Your task to perform on an android device: turn notification dots off Image 0: 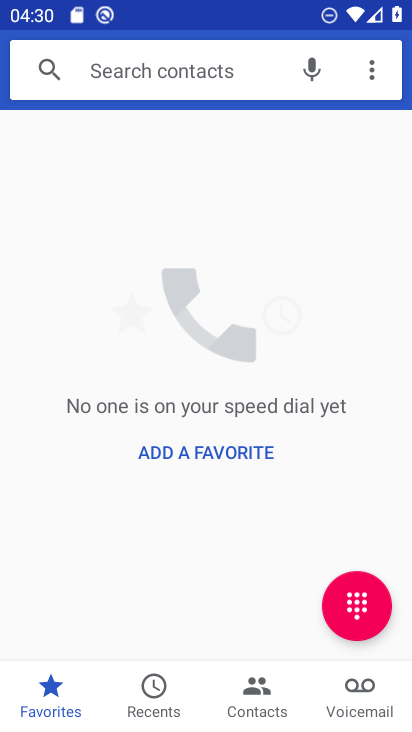
Step 0: drag from (170, 620) to (185, 525)
Your task to perform on an android device: turn notification dots off Image 1: 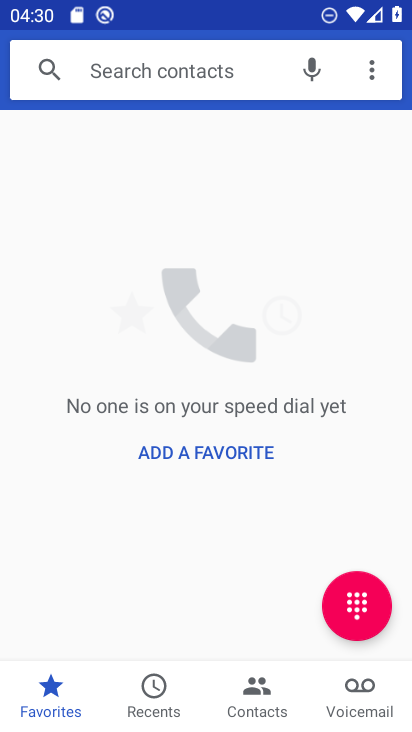
Step 1: press home button
Your task to perform on an android device: turn notification dots off Image 2: 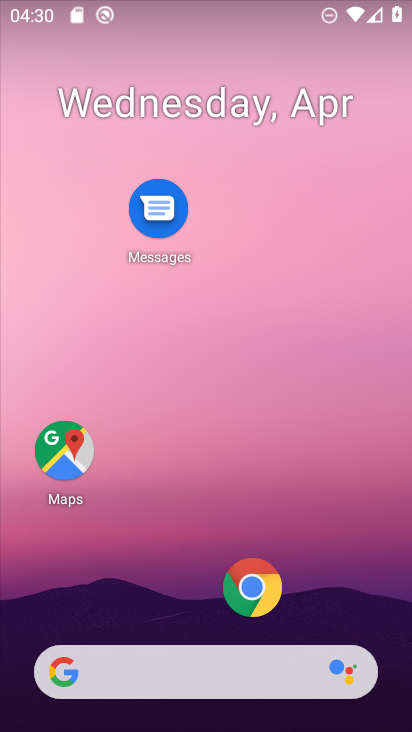
Step 2: drag from (187, 541) to (239, 153)
Your task to perform on an android device: turn notification dots off Image 3: 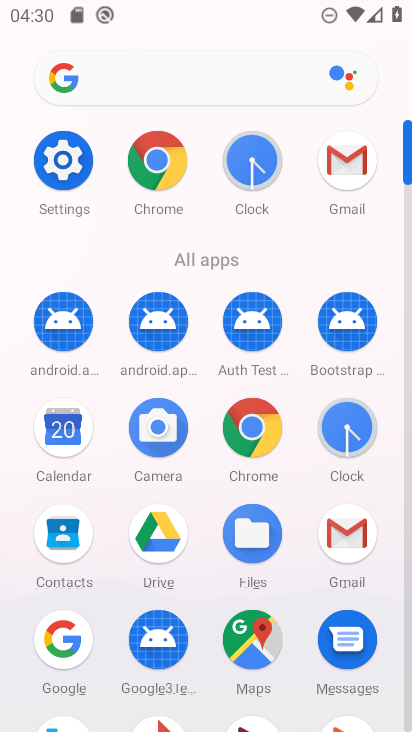
Step 3: click (77, 166)
Your task to perform on an android device: turn notification dots off Image 4: 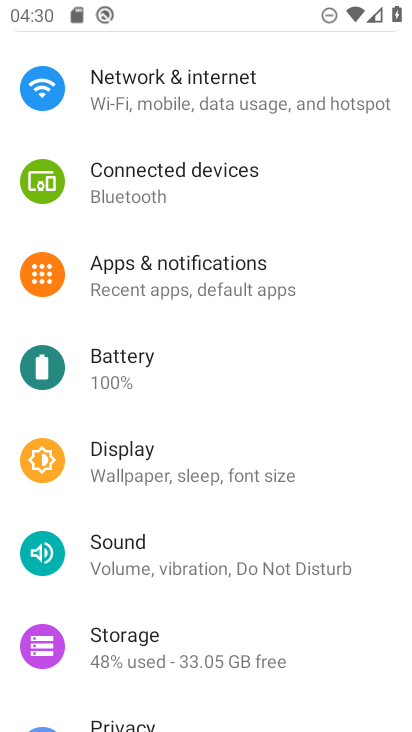
Step 4: click (225, 262)
Your task to perform on an android device: turn notification dots off Image 5: 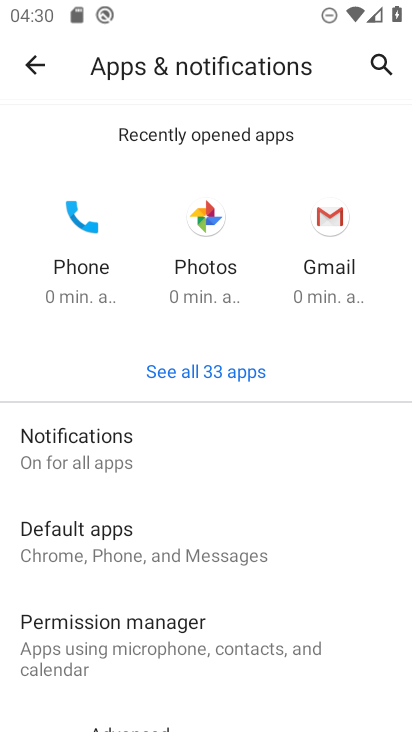
Step 5: drag from (223, 632) to (227, 327)
Your task to perform on an android device: turn notification dots off Image 6: 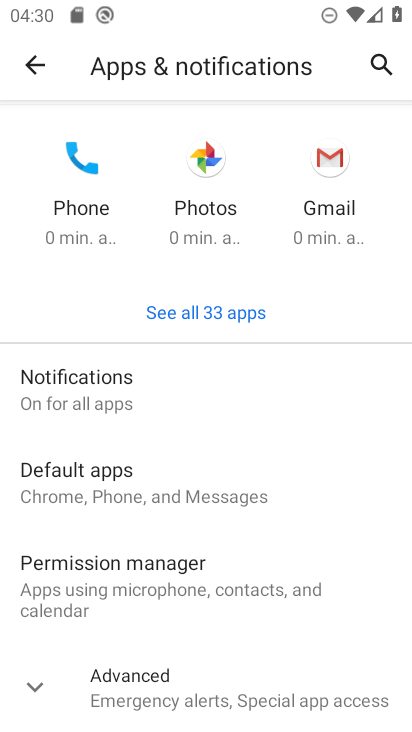
Step 6: click (221, 672)
Your task to perform on an android device: turn notification dots off Image 7: 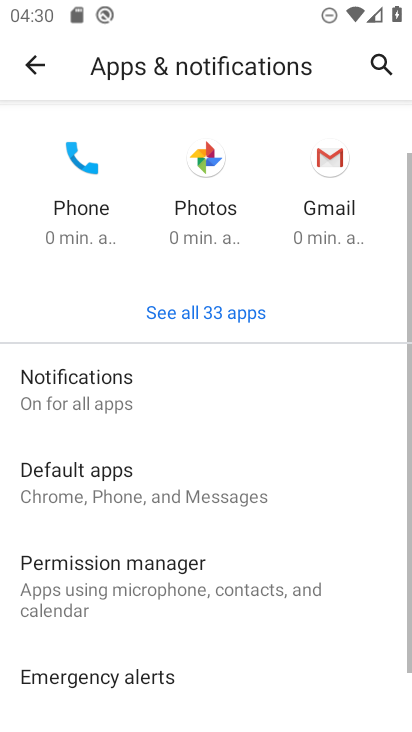
Step 7: drag from (220, 663) to (235, 436)
Your task to perform on an android device: turn notification dots off Image 8: 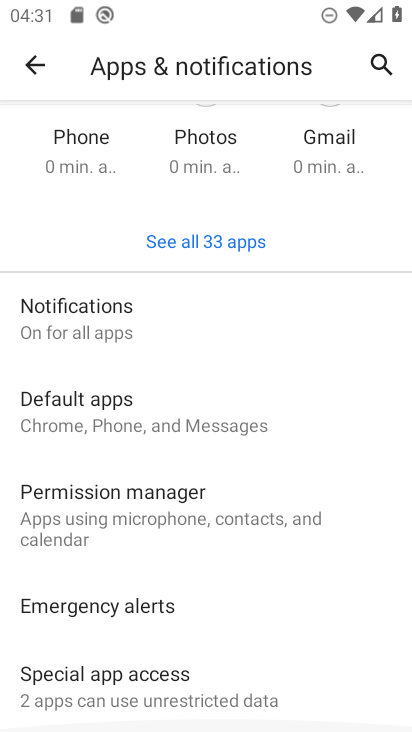
Step 8: click (182, 329)
Your task to perform on an android device: turn notification dots off Image 9: 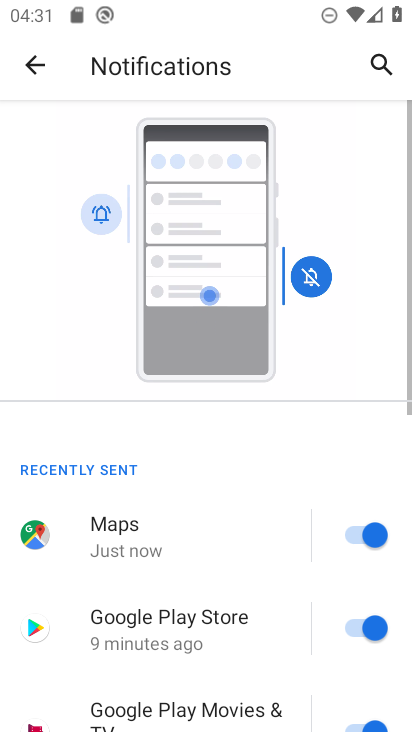
Step 9: drag from (199, 653) to (233, 224)
Your task to perform on an android device: turn notification dots off Image 10: 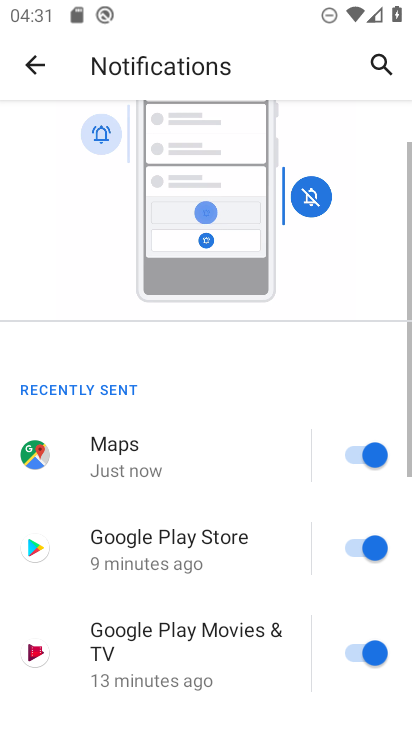
Step 10: drag from (278, 589) to (290, 268)
Your task to perform on an android device: turn notification dots off Image 11: 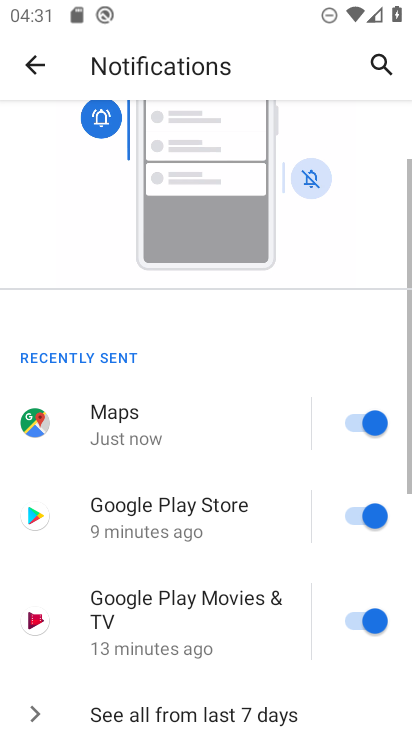
Step 11: drag from (290, 594) to (304, 259)
Your task to perform on an android device: turn notification dots off Image 12: 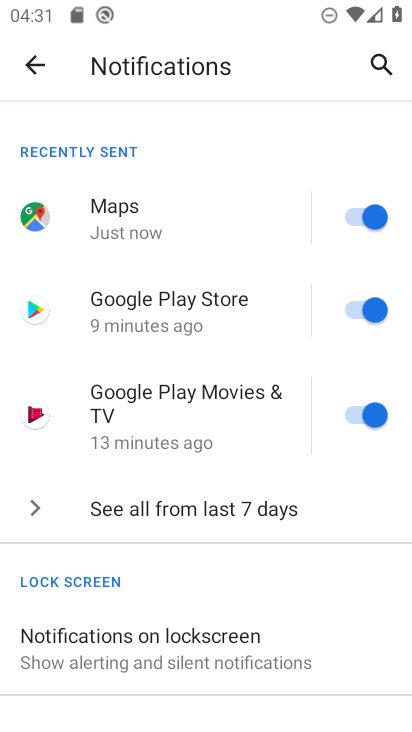
Step 12: drag from (276, 665) to (285, 250)
Your task to perform on an android device: turn notification dots off Image 13: 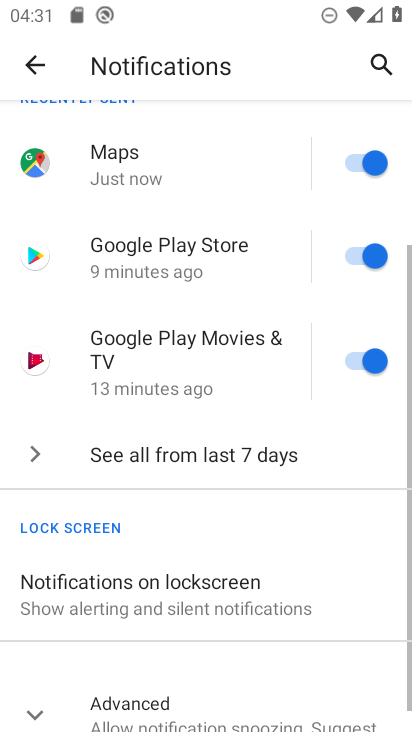
Step 13: drag from (266, 625) to (253, 359)
Your task to perform on an android device: turn notification dots off Image 14: 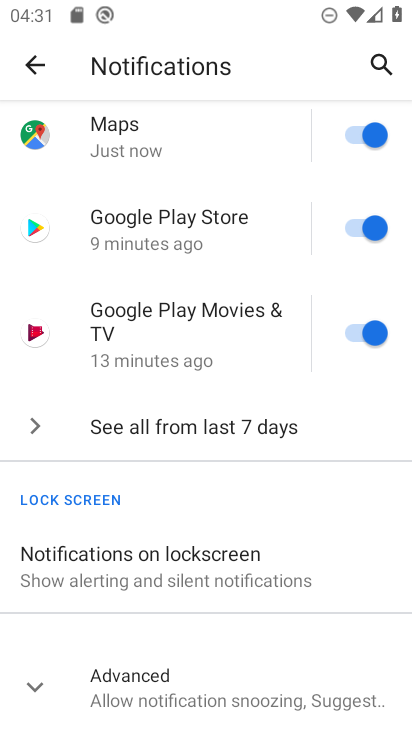
Step 14: drag from (237, 626) to (252, 411)
Your task to perform on an android device: turn notification dots off Image 15: 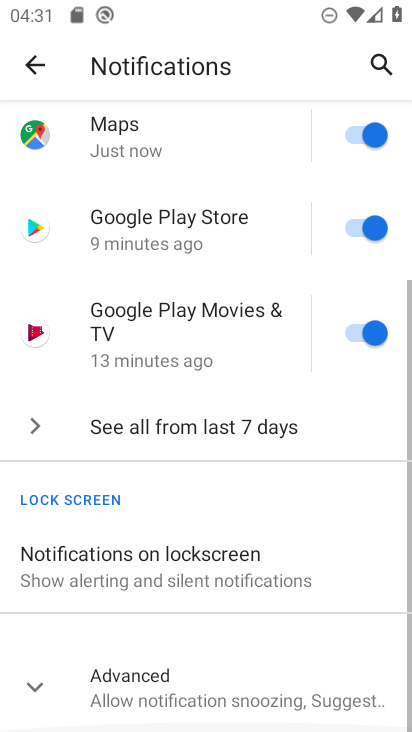
Step 15: click (168, 694)
Your task to perform on an android device: turn notification dots off Image 16: 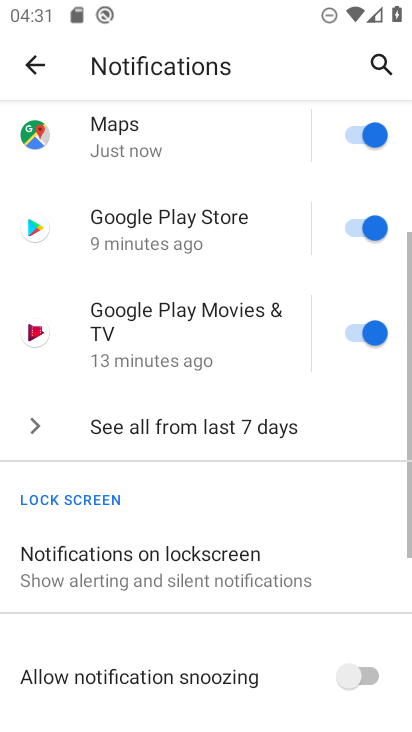
Step 16: drag from (168, 694) to (235, 359)
Your task to perform on an android device: turn notification dots off Image 17: 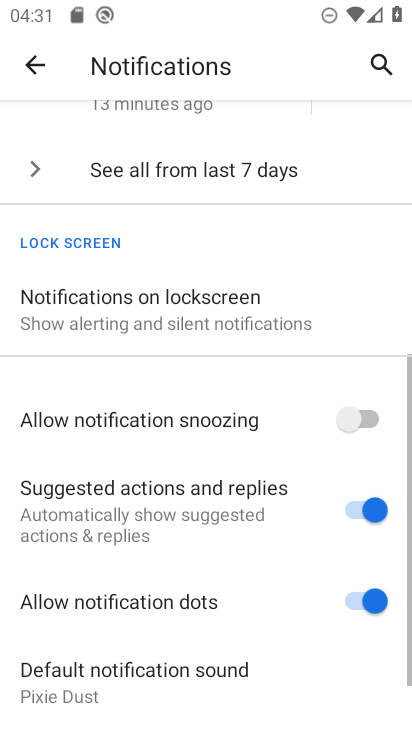
Step 17: drag from (211, 709) to (234, 487)
Your task to perform on an android device: turn notification dots off Image 18: 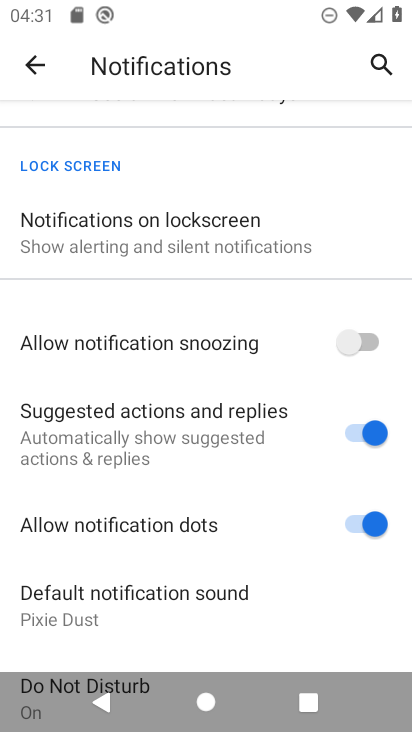
Step 18: click (350, 531)
Your task to perform on an android device: turn notification dots off Image 19: 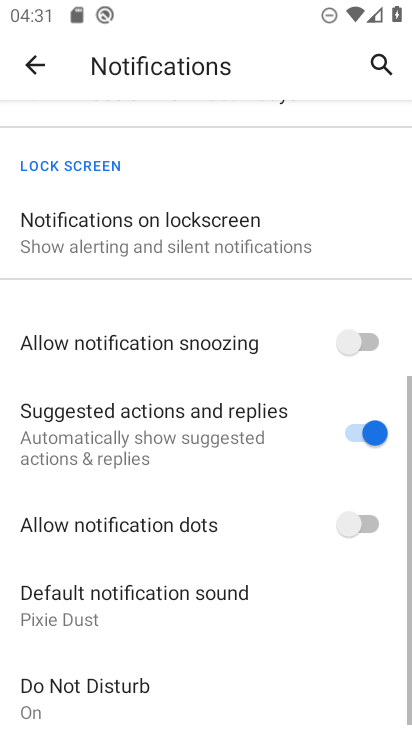
Step 19: task complete